Your task to perform on an android device: Empty the shopping cart on costco. Add "dell xps" to the cart on costco Image 0: 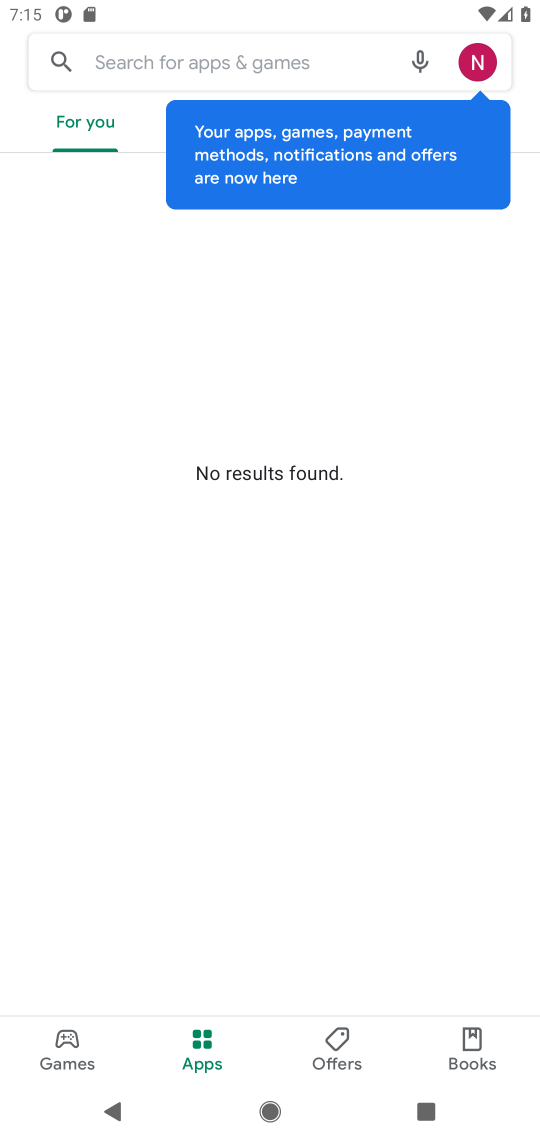
Step 0: press home button
Your task to perform on an android device: Empty the shopping cart on costco. Add "dell xps" to the cart on costco Image 1: 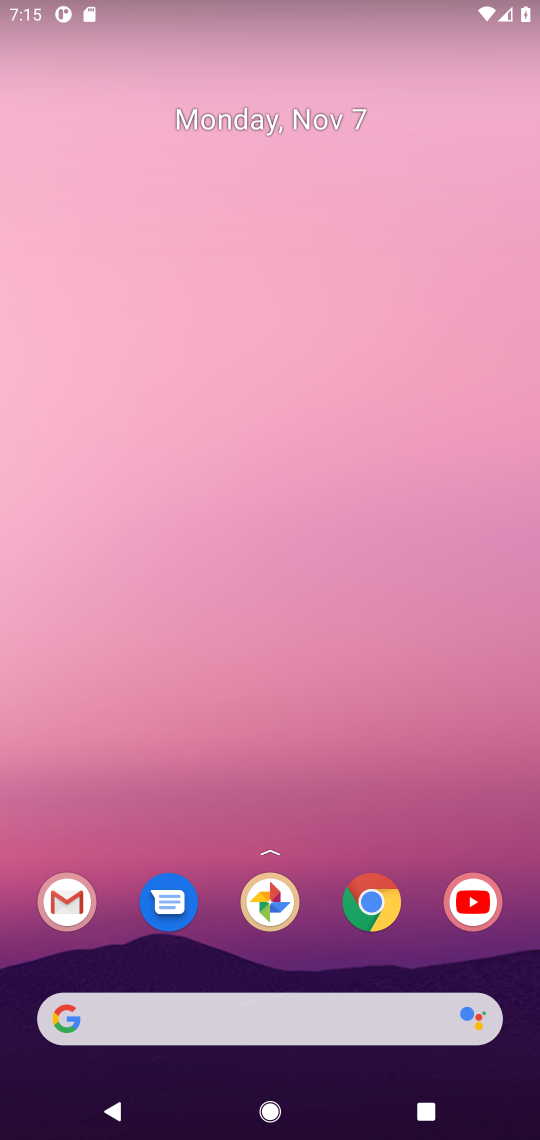
Step 1: click (381, 910)
Your task to perform on an android device: Empty the shopping cart on costco. Add "dell xps" to the cart on costco Image 2: 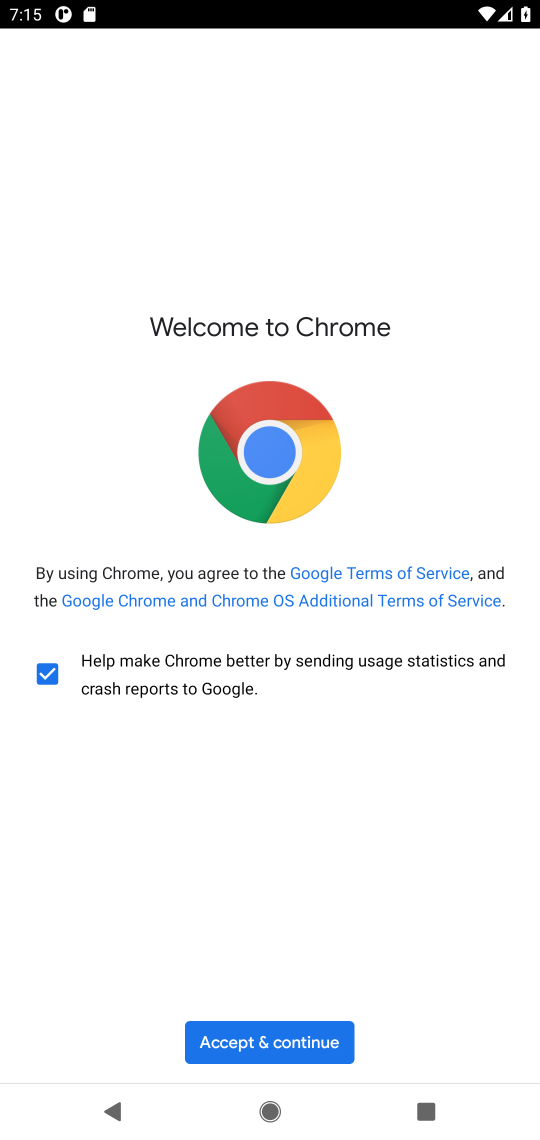
Step 2: click (270, 1037)
Your task to perform on an android device: Empty the shopping cart on costco. Add "dell xps" to the cart on costco Image 3: 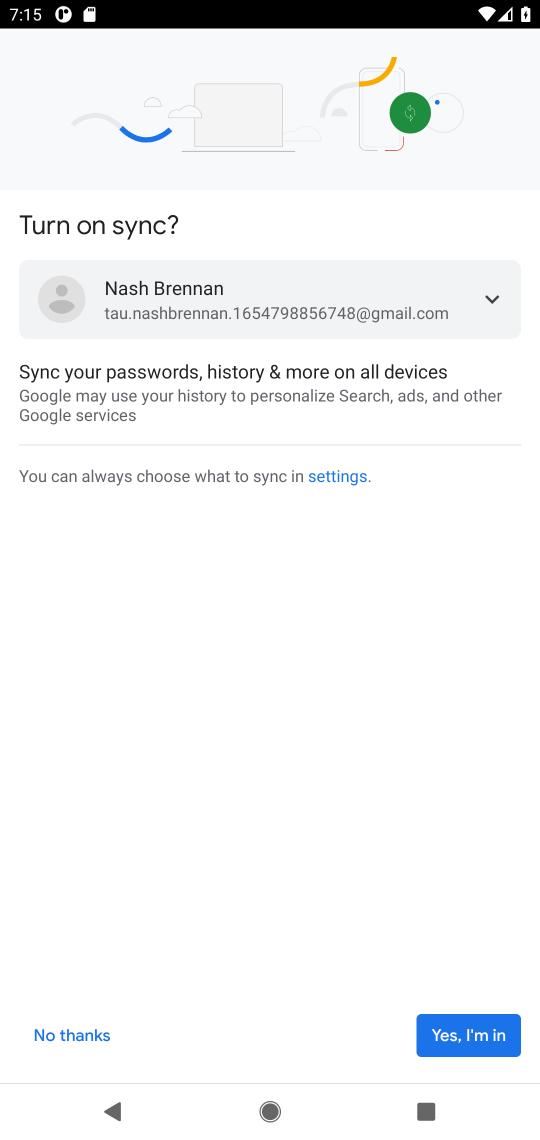
Step 3: click (94, 1039)
Your task to perform on an android device: Empty the shopping cart on costco. Add "dell xps" to the cart on costco Image 4: 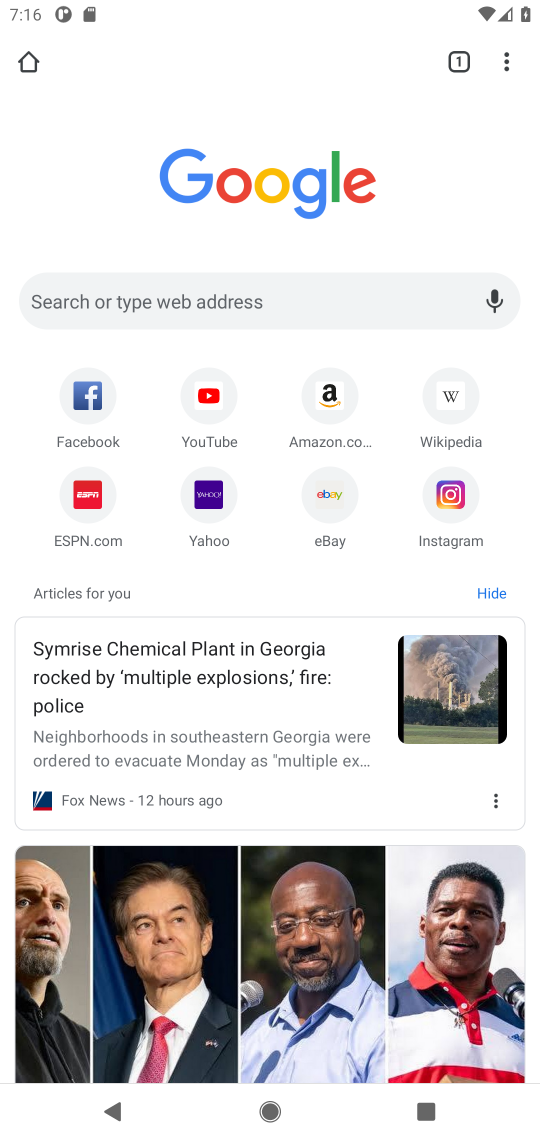
Step 4: click (176, 289)
Your task to perform on an android device: Empty the shopping cart on costco. Add "dell xps" to the cart on costco Image 5: 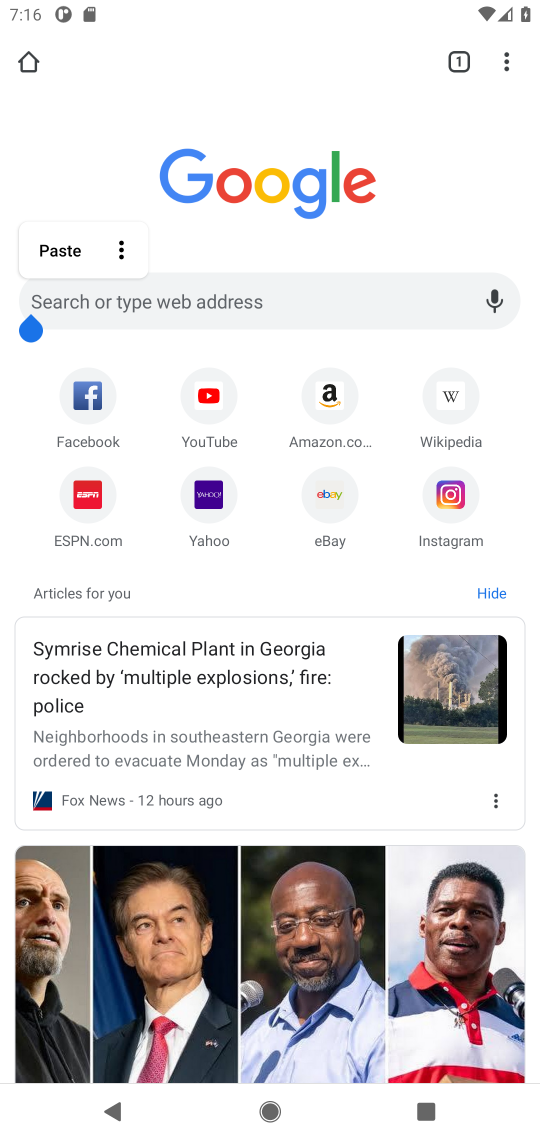
Step 5: click (78, 301)
Your task to perform on an android device: Empty the shopping cart on costco. Add "dell xps" to the cart on costco Image 6: 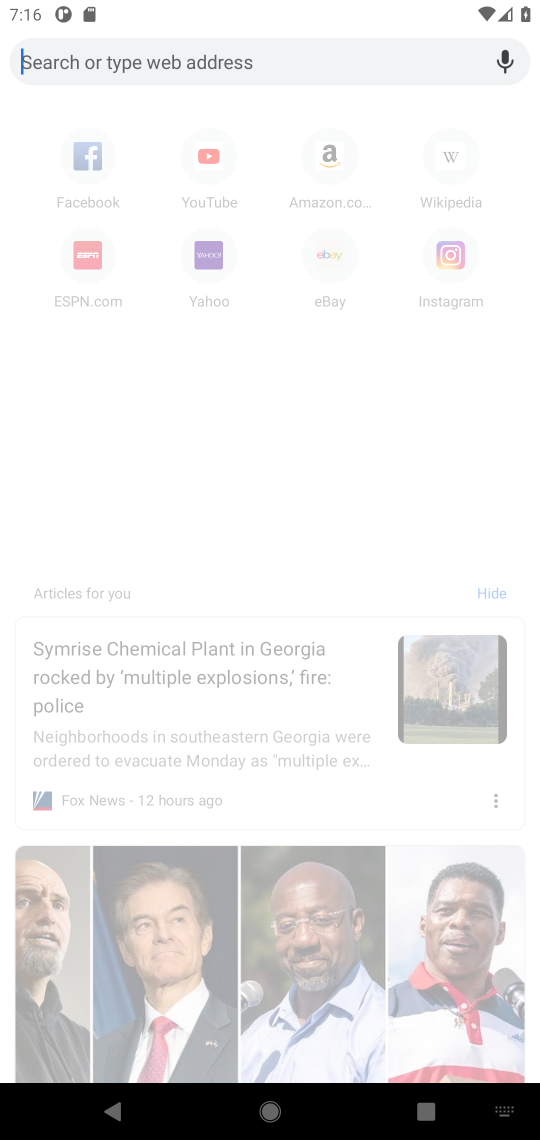
Step 6: type "costco.com"
Your task to perform on an android device: Empty the shopping cart on costco. Add "dell xps" to the cart on costco Image 7: 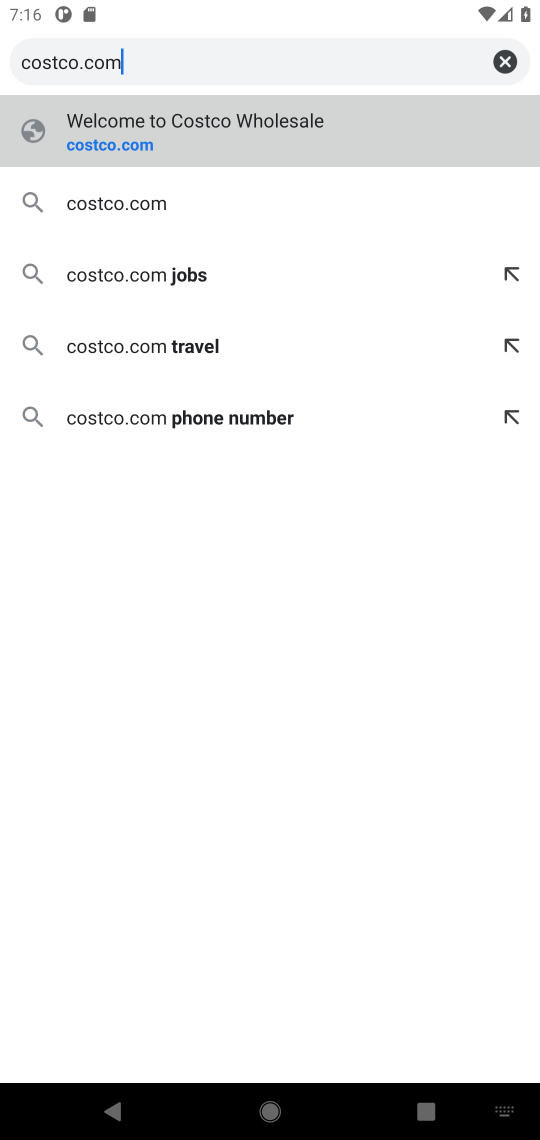
Step 7: click (135, 148)
Your task to perform on an android device: Empty the shopping cart on costco. Add "dell xps" to the cart on costco Image 8: 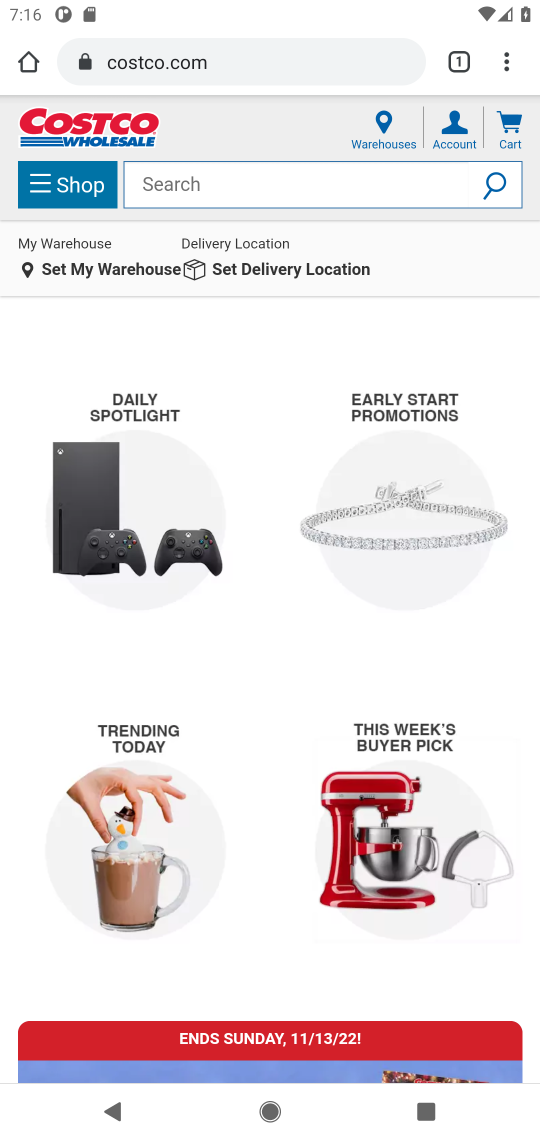
Step 8: click (504, 123)
Your task to perform on an android device: Empty the shopping cart on costco. Add "dell xps" to the cart on costco Image 9: 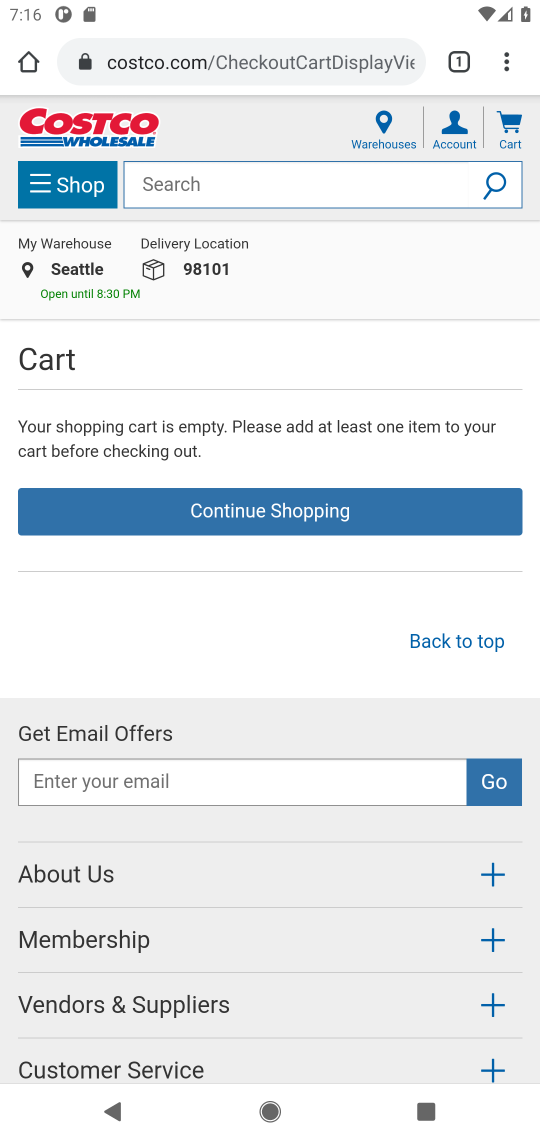
Step 9: click (176, 186)
Your task to perform on an android device: Empty the shopping cart on costco. Add "dell xps" to the cart on costco Image 10: 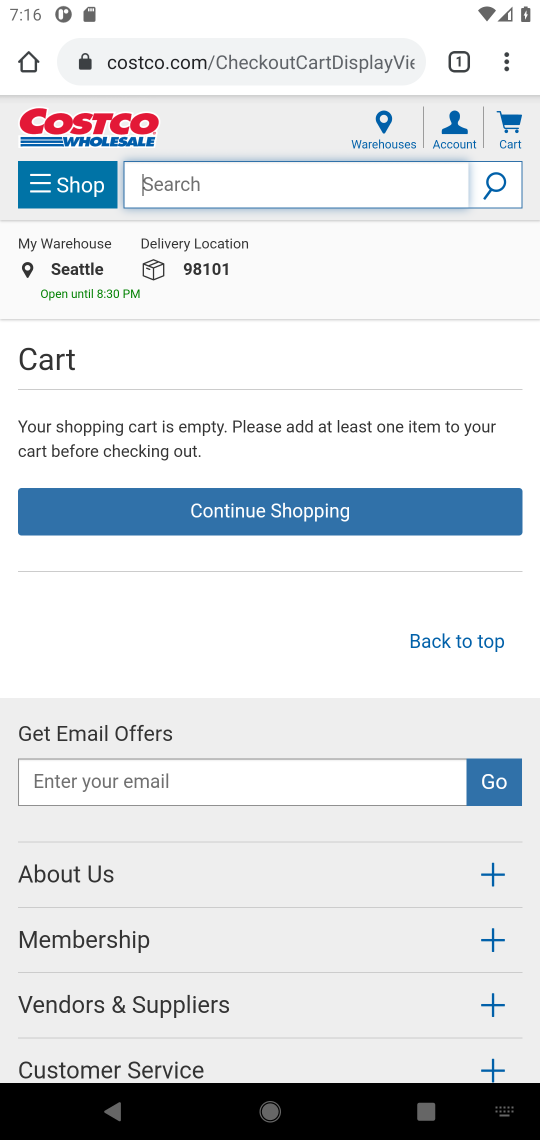
Step 10: type "dell xps"
Your task to perform on an android device: Empty the shopping cart on costco. Add "dell xps" to the cart on costco Image 11: 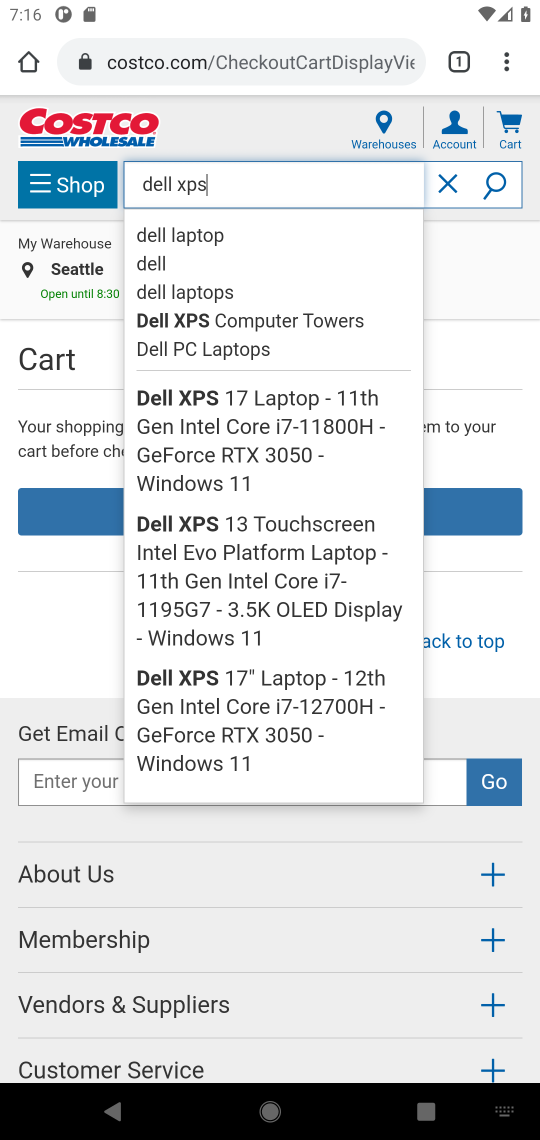
Step 11: click (493, 186)
Your task to perform on an android device: Empty the shopping cart on costco. Add "dell xps" to the cart on costco Image 12: 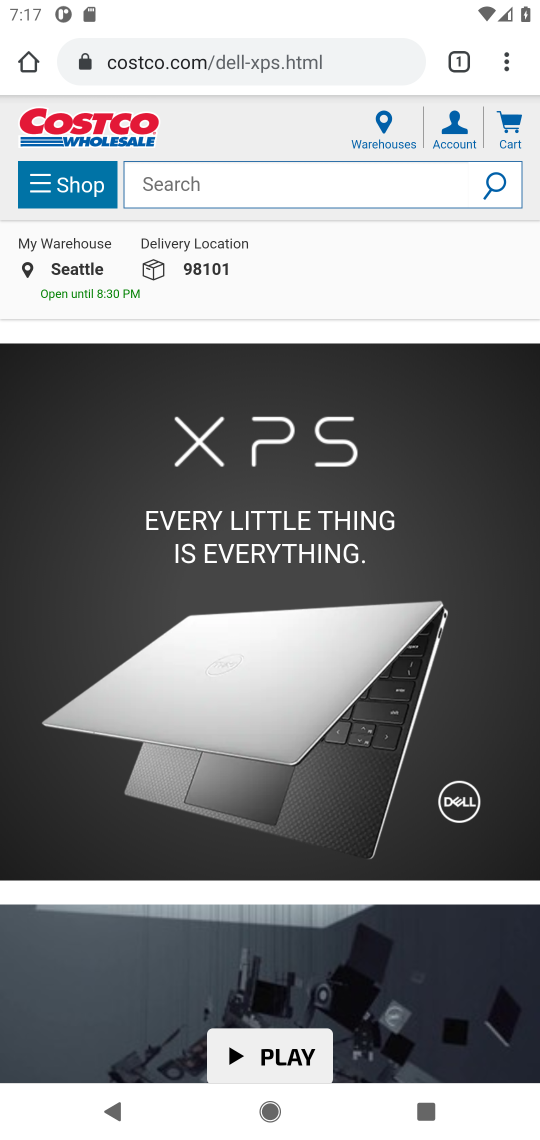
Step 12: task complete